Your task to perform on an android device: Open Chrome and go to settings Image 0: 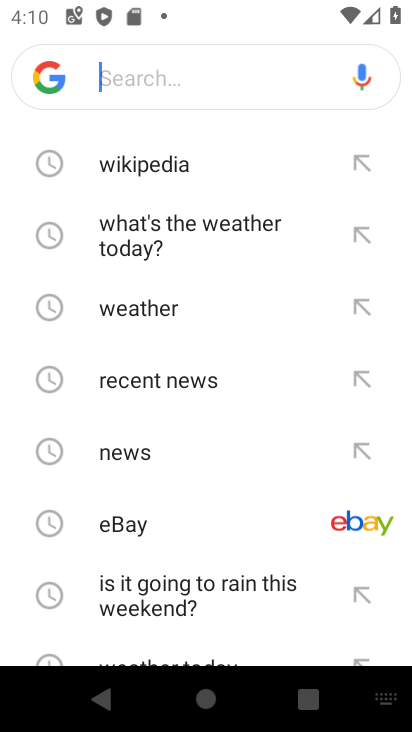
Step 0: press home button
Your task to perform on an android device: Open Chrome and go to settings Image 1: 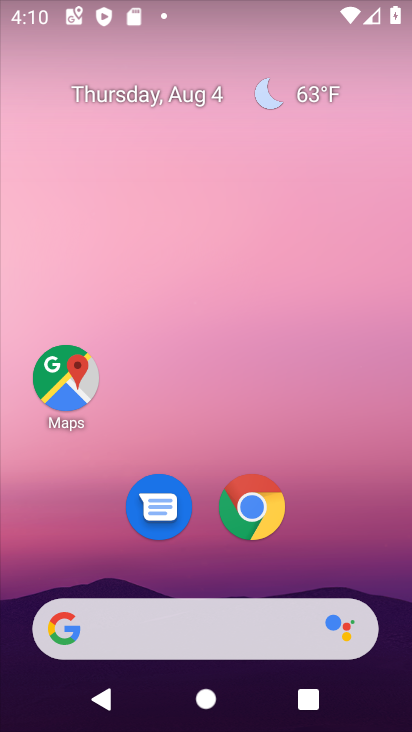
Step 1: click (243, 500)
Your task to perform on an android device: Open Chrome and go to settings Image 2: 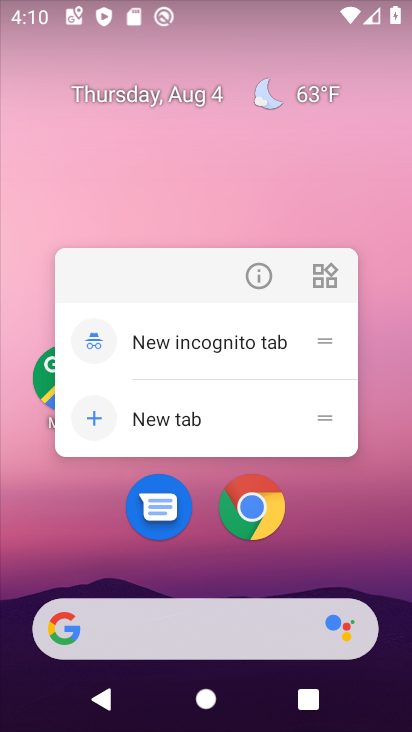
Step 2: click (260, 521)
Your task to perform on an android device: Open Chrome and go to settings Image 3: 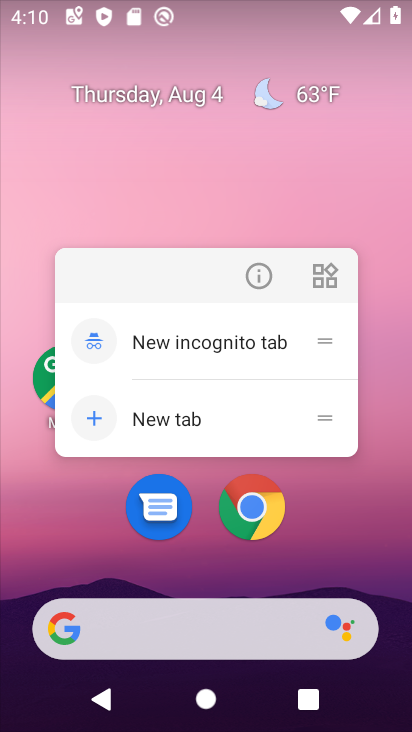
Step 3: task complete